Your task to perform on an android device: delete the emails in spam in the gmail app Image 0: 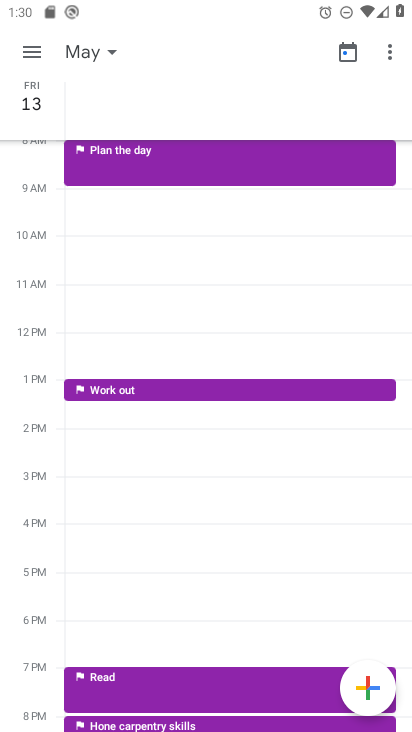
Step 0: press home button
Your task to perform on an android device: delete the emails in spam in the gmail app Image 1: 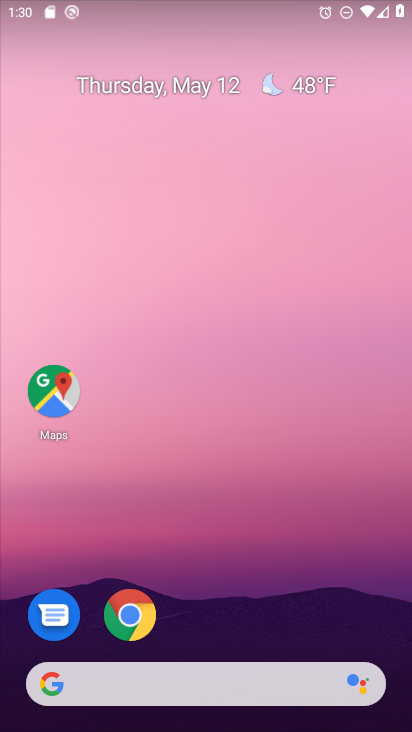
Step 1: drag from (212, 723) to (326, 0)
Your task to perform on an android device: delete the emails in spam in the gmail app Image 2: 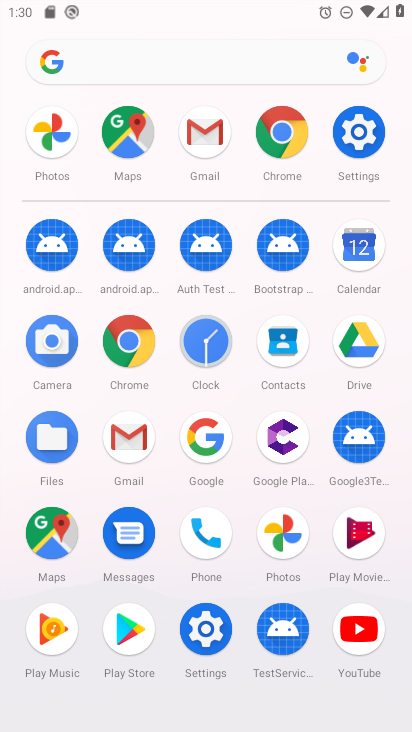
Step 2: click (120, 436)
Your task to perform on an android device: delete the emails in spam in the gmail app Image 3: 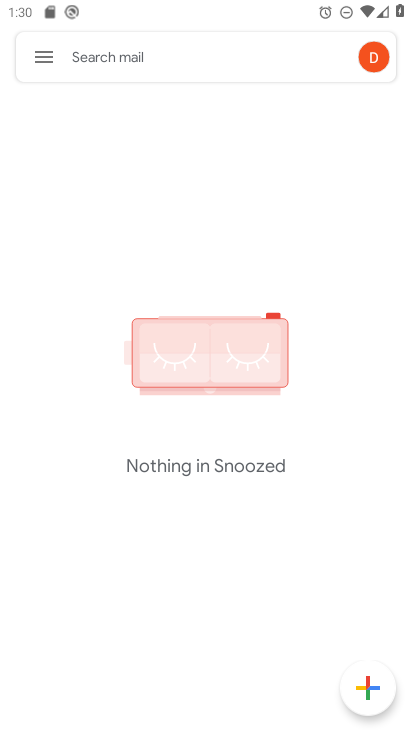
Step 3: click (49, 56)
Your task to perform on an android device: delete the emails in spam in the gmail app Image 4: 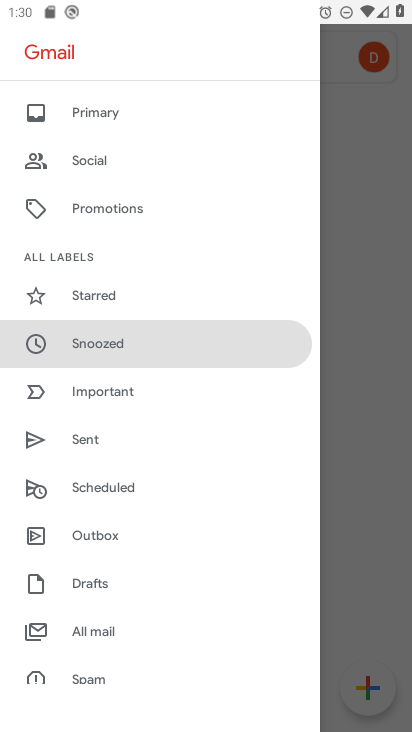
Step 4: click (101, 666)
Your task to perform on an android device: delete the emails in spam in the gmail app Image 5: 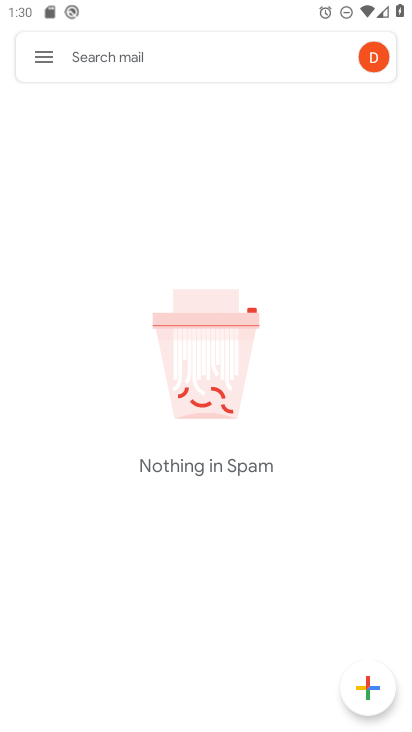
Step 5: task complete